Your task to perform on an android device: change your default location settings in chrome Image 0: 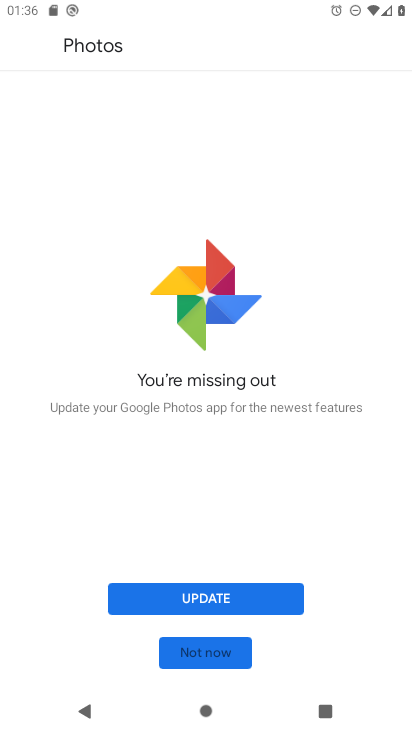
Step 0: press home button
Your task to perform on an android device: change your default location settings in chrome Image 1: 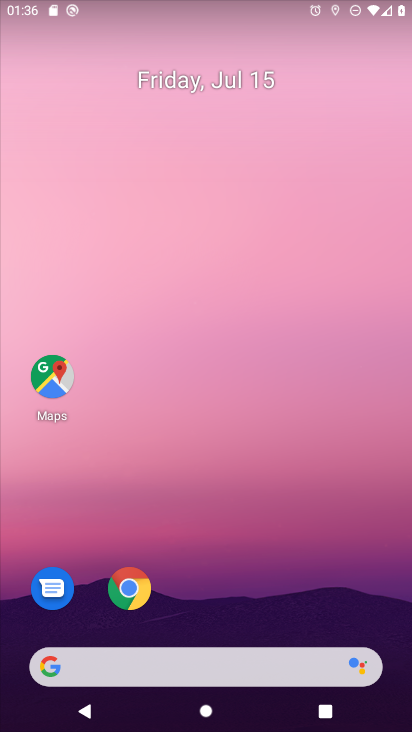
Step 1: click (132, 588)
Your task to perform on an android device: change your default location settings in chrome Image 2: 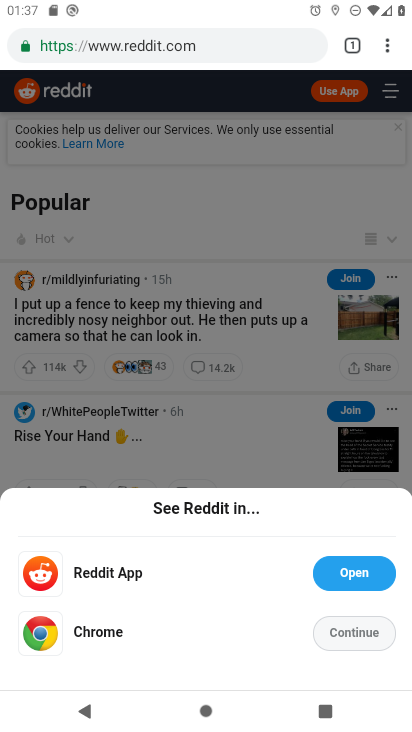
Step 2: click (382, 45)
Your task to perform on an android device: change your default location settings in chrome Image 3: 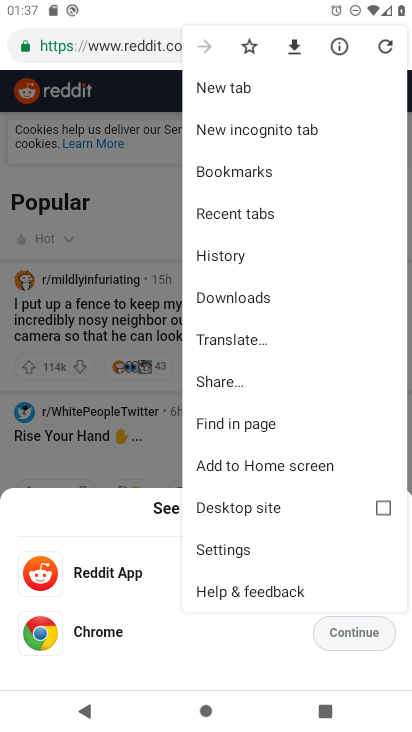
Step 3: click (223, 558)
Your task to perform on an android device: change your default location settings in chrome Image 4: 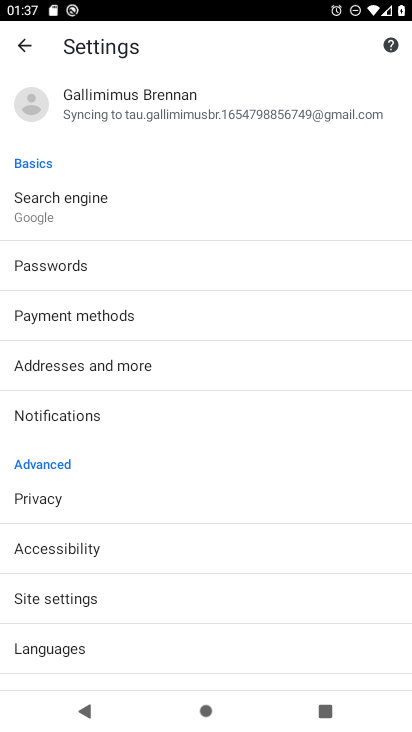
Step 4: drag from (188, 574) to (190, 322)
Your task to perform on an android device: change your default location settings in chrome Image 5: 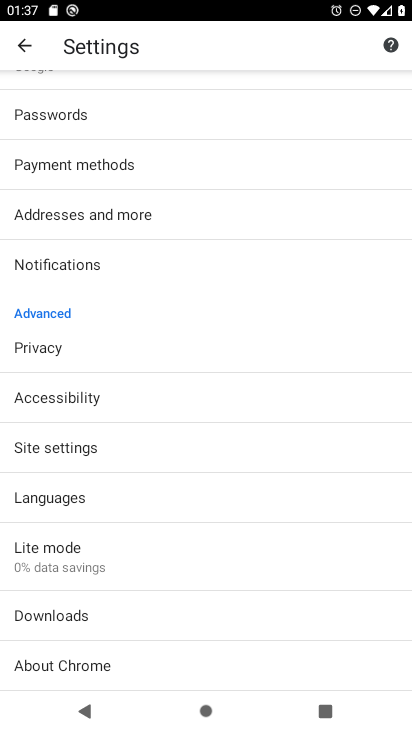
Step 5: click (72, 451)
Your task to perform on an android device: change your default location settings in chrome Image 6: 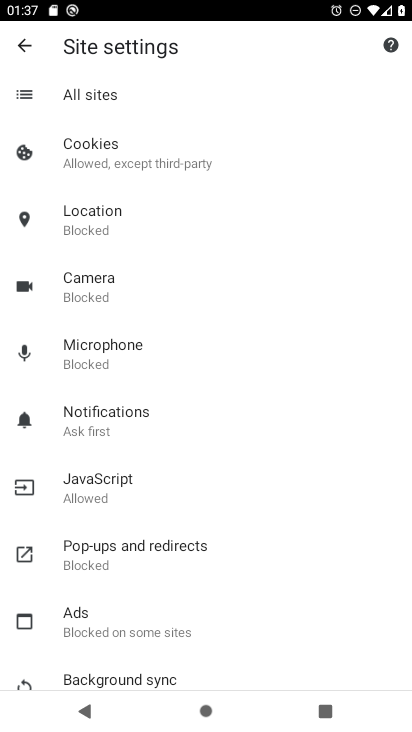
Step 6: click (82, 218)
Your task to perform on an android device: change your default location settings in chrome Image 7: 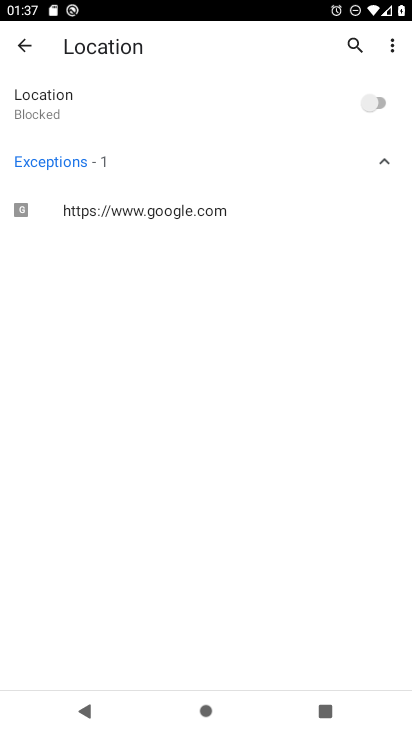
Step 7: click (388, 105)
Your task to perform on an android device: change your default location settings in chrome Image 8: 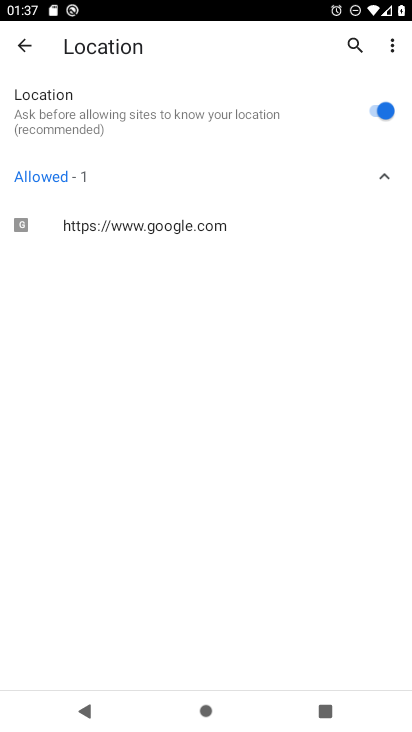
Step 8: task complete